Your task to perform on an android device: Open my contact list Image 0: 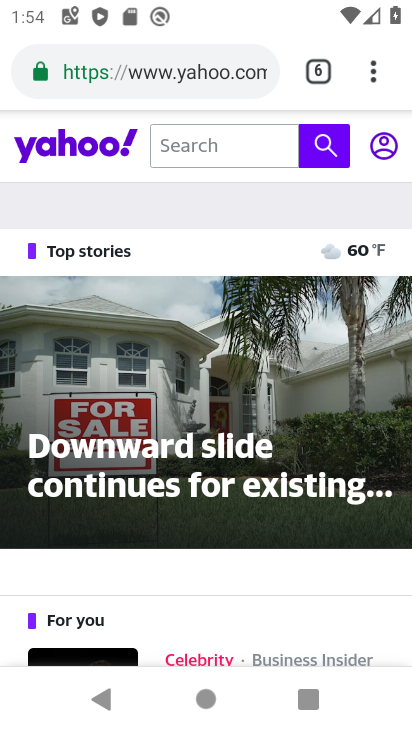
Step 0: press home button
Your task to perform on an android device: Open my contact list Image 1: 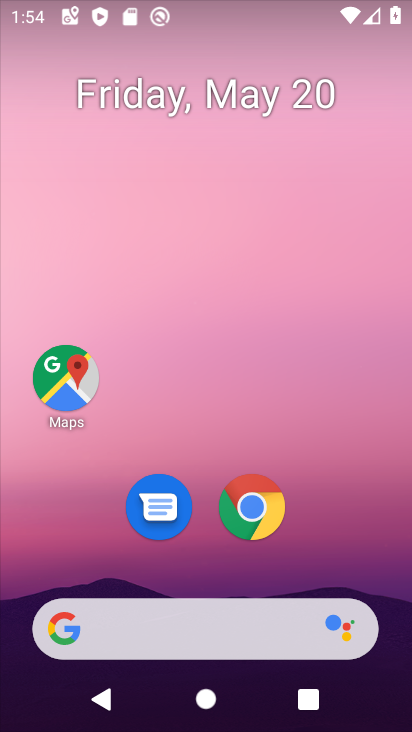
Step 1: drag from (229, 716) to (227, 189)
Your task to perform on an android device: Open my contact list Image 2: 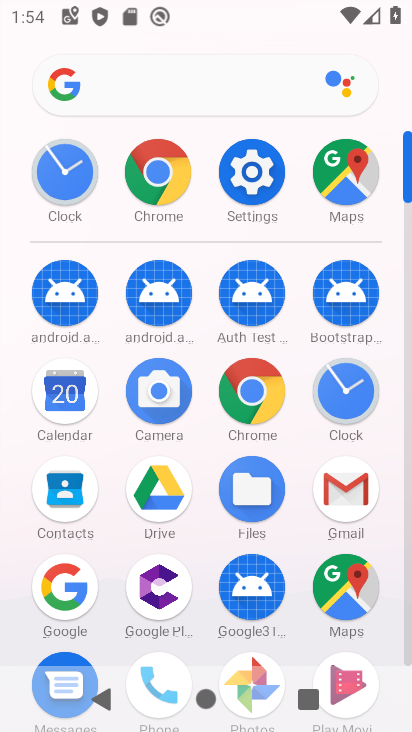
Step 2: click (68, 492)
Your task to perform on an android device: Open my contact list Image 3: 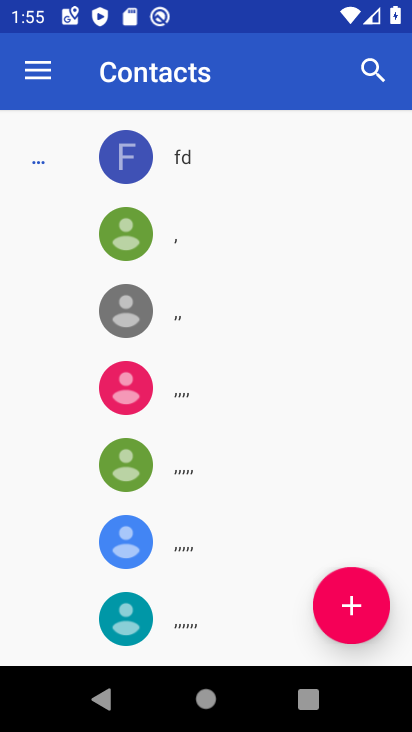
Step 3: task complete